Your task to perform on an android device: Show me some nice wallpapers for my phone Image 0: 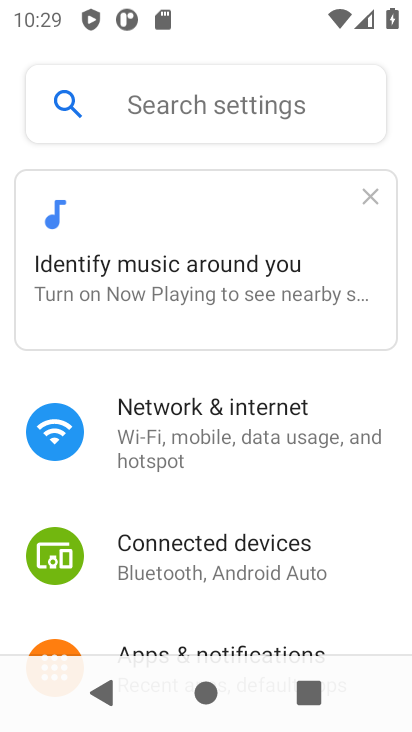
Step 0: press home button
Your task to perform on an android device: Show me some nice wallpapers for my phone Image 1: 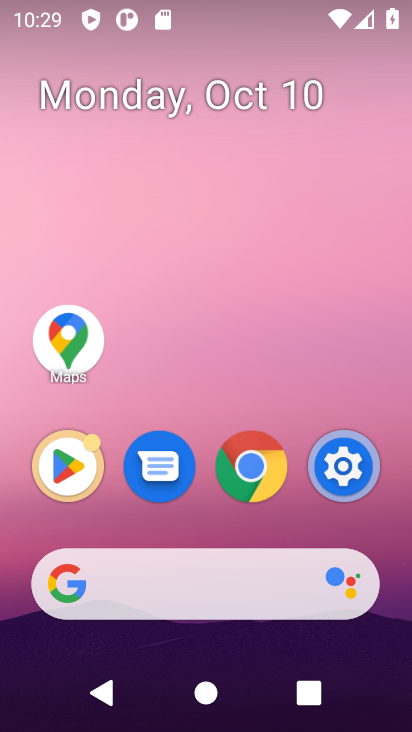
Step 1: click (66, 577)
Your task to perform on an android device: Show me some nice wallpapers for my phone Image 2: 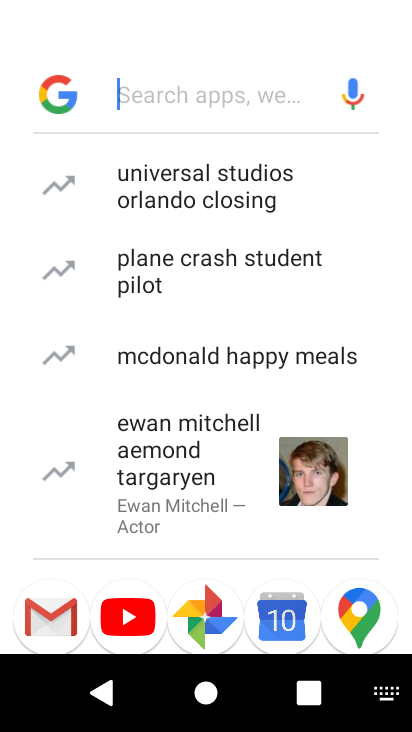
Step 2: type "nice wallpapers for my phone"
Your task to perform on an android device: Show me some nice wallpapers for my phone Image 3: 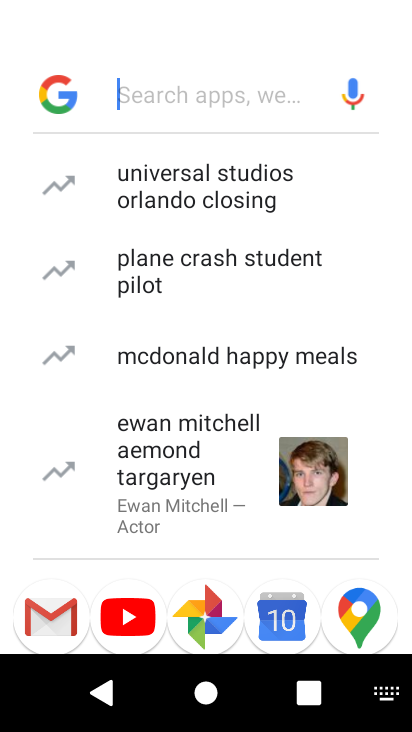
Step 3: click (147, 88)
Your task to perform on an android device: Show me some nice wallpapers for my phone Image 4: 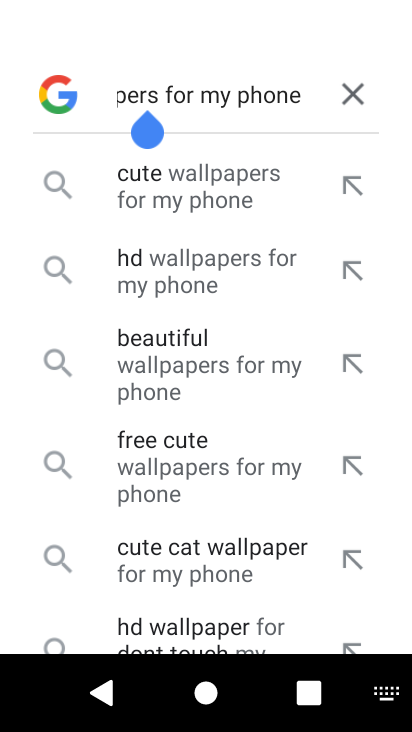
Step 4: press enter
Your task to perform on an android device: Show me some nice wallpapers for my phone Image 5: 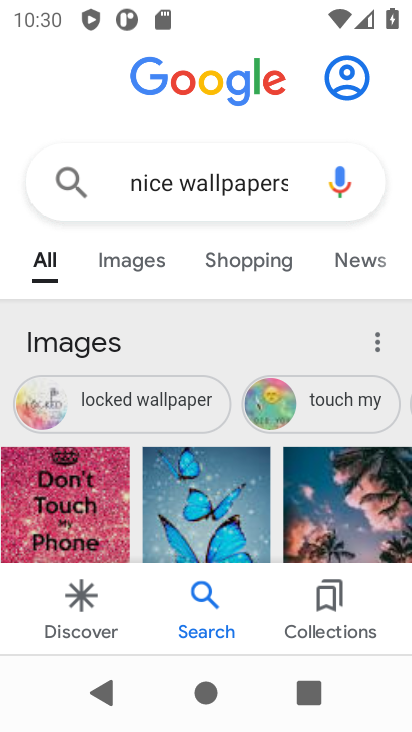
Step 5: task complete